Your task to perform on an android device: Open Youtube and go to the subscriptions tab Image 0: 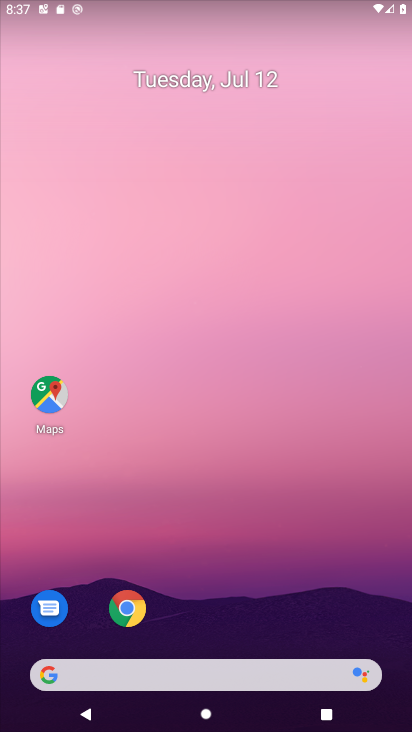
Step 0: drag from (228, 653) to (328, 303)
Your task to perform on an android device: Open Youtube and go to the subscriptions tab Image 1: 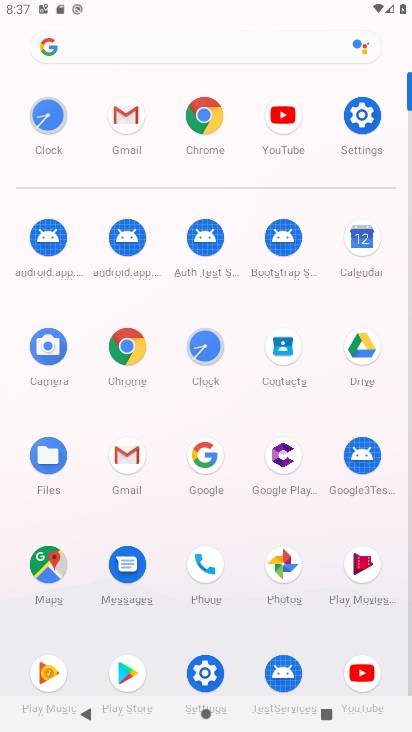
Step 1: click (362, 667)
Your task to perform on an android device: Open Youtube and go to the subscriptions tab Image 2: 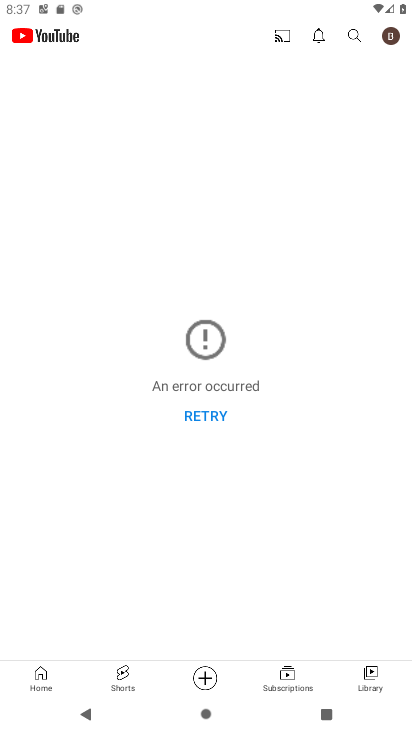
Step 2: click (201, 415)
Your task to perform on an android device: Open Youtube and go to the subscriptions tab Image 3: 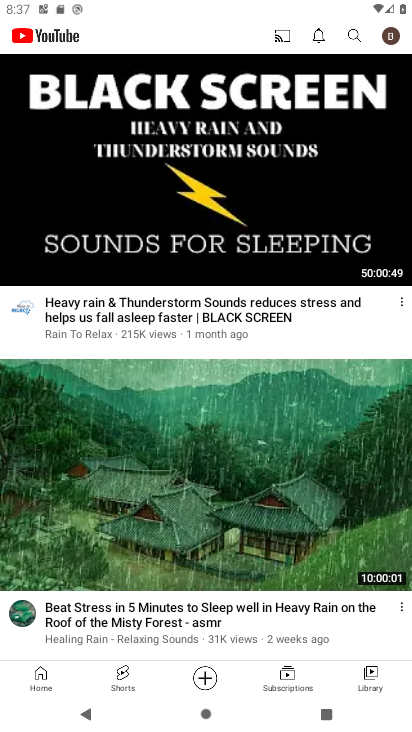
Step 3: click (291, 678)
Your task to perform on an android device: Open Youtube and go to the subscriptions tab Image 4: 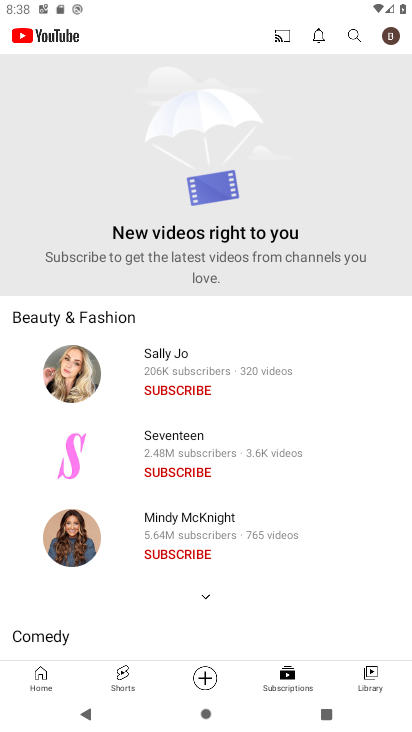
Step 4: task complete